Your task to perform on an android device: turn off airplane mode Image 0: 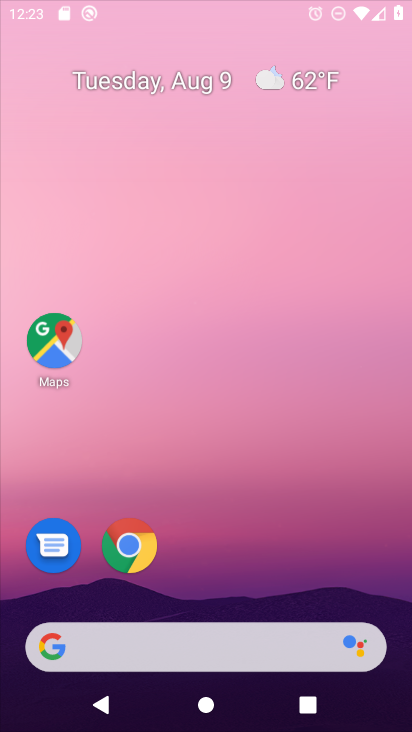
Step 0: press home button
Your task to perform on an android device: turn off airplane mode Image 1: 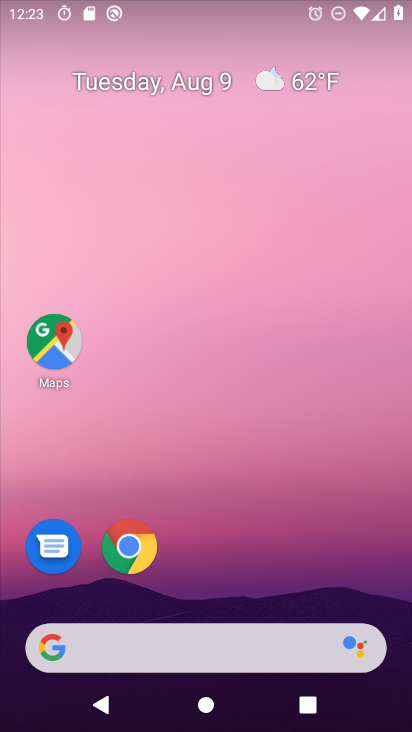
Step 1: drag from (231, 600) to (234, 30)
Your task to perform on an android device: turn off airplane mode Image 2: 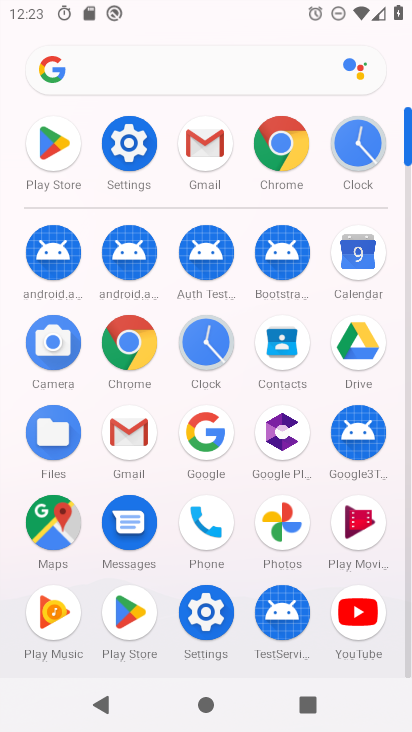
Step 2: click (129, 138)
Your task to perform on an android device: turn off airplane mode Image 3: 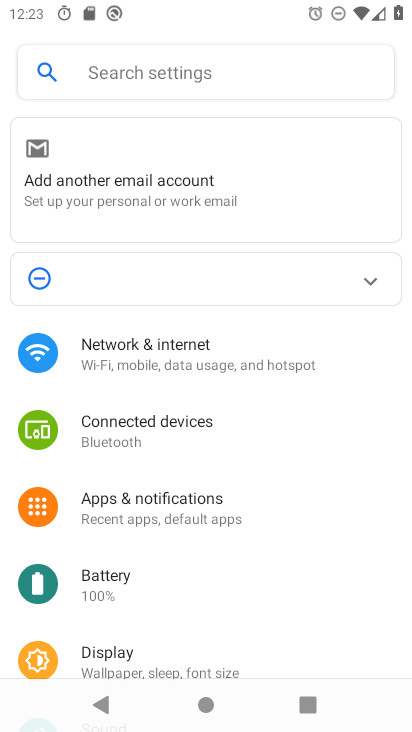
Step 3: click (235, 352)
Your task to perform on an android device: turn off airplane mode Image 4: 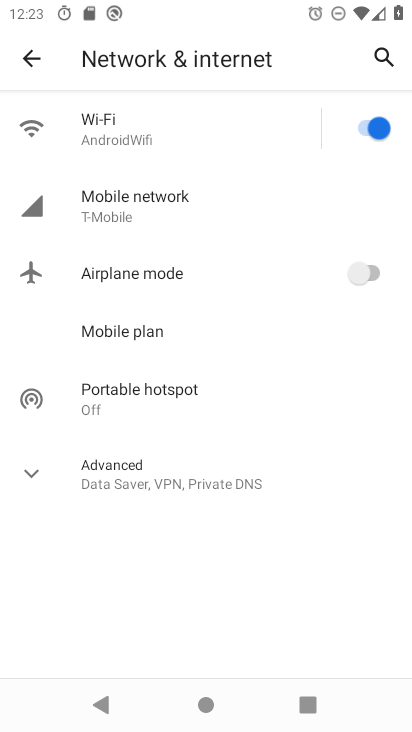
Step 4: task complete